Your task to perform on an android device: turn off javascript in the chrome app Image 0: 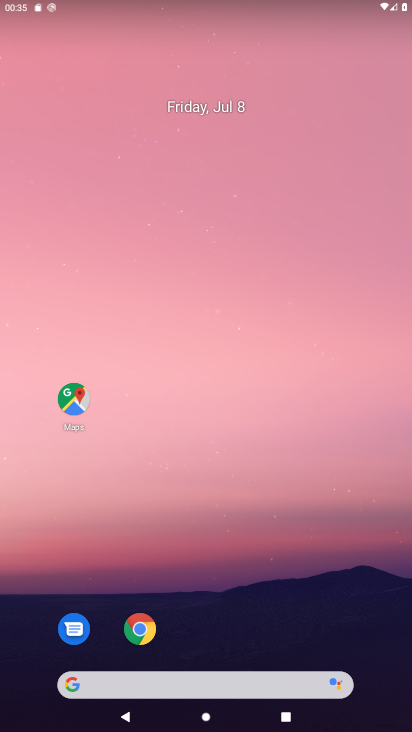
Step 0: click (143, 619)
Your task to perform on an android device: turn off javascript in the chrome app Image 1: 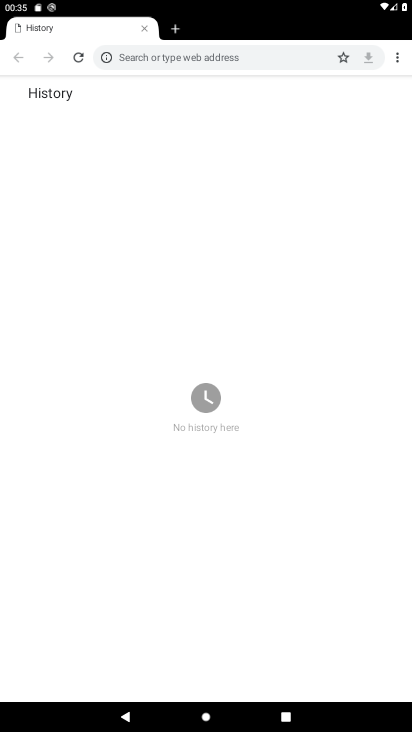
Step 1: click (398, 54)
Your task to perform on an android device: turn off javascript in the chrome app Image 2: 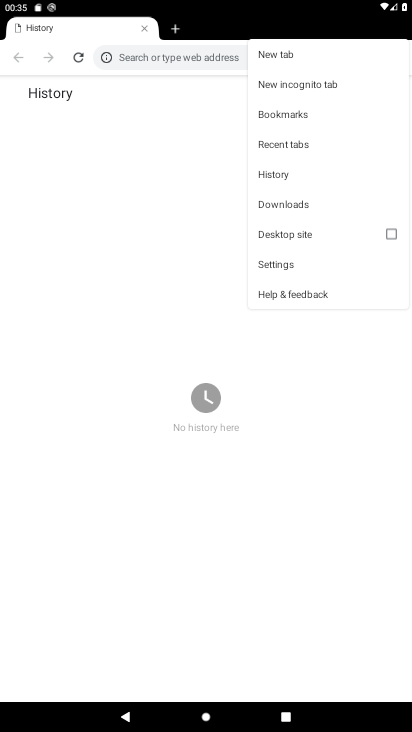
Step 2: click (294, 272)
Your task to perform on an android device: turn off javascript in the chrome app Image 3: 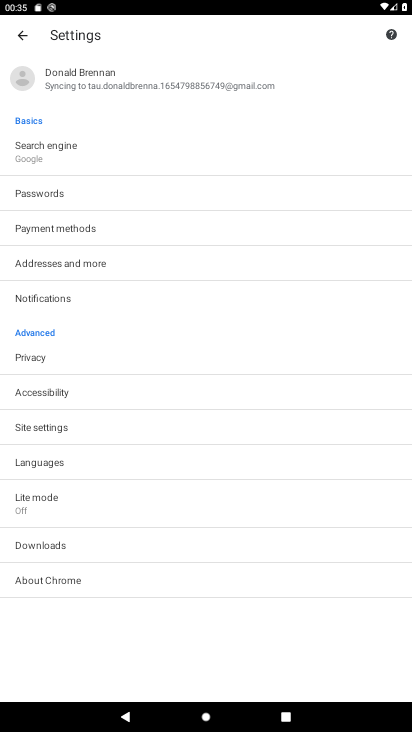
Step 3: click (63, 435)
Your task to perform on an android device: turn off javascript in the chrome app Image 4: 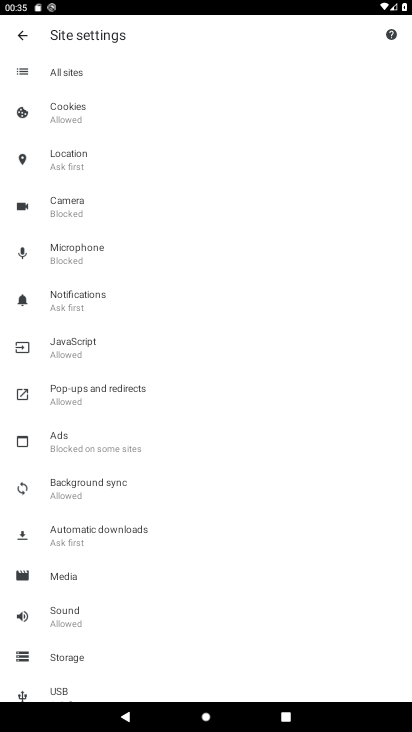
Step 4: click (92, 351)
Your task to perform on an android device: turn off javascript in the chrome app Image 5: 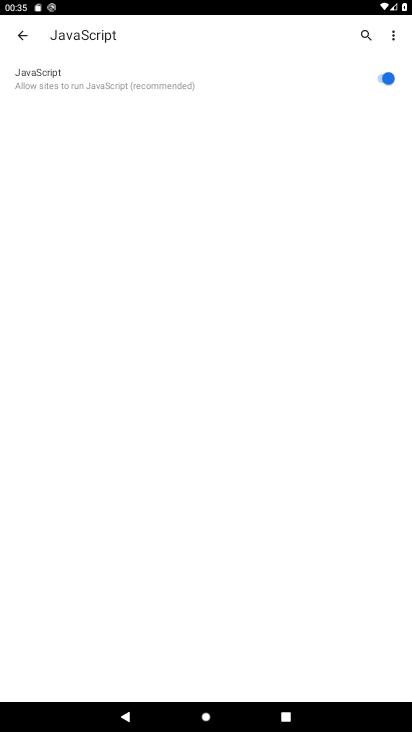
Step 5: click (386, 81)
Your task to perform on an android device: turn off javascript in the chrome app Image 6: 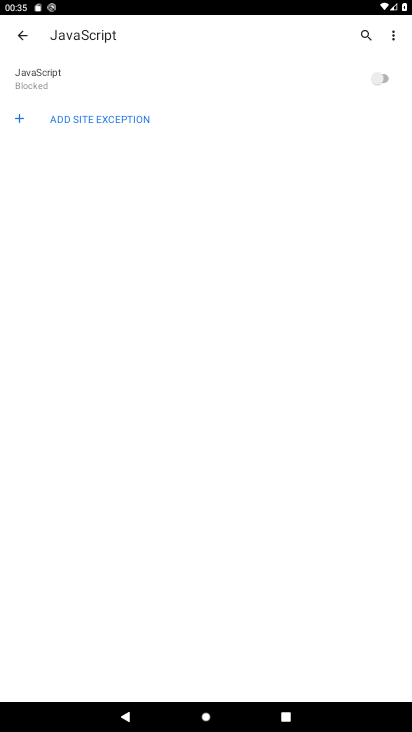
Step 6: task complete